Your task to perform on an android device: open app "Yahoo Mail" (install if not already installed) Image 0: 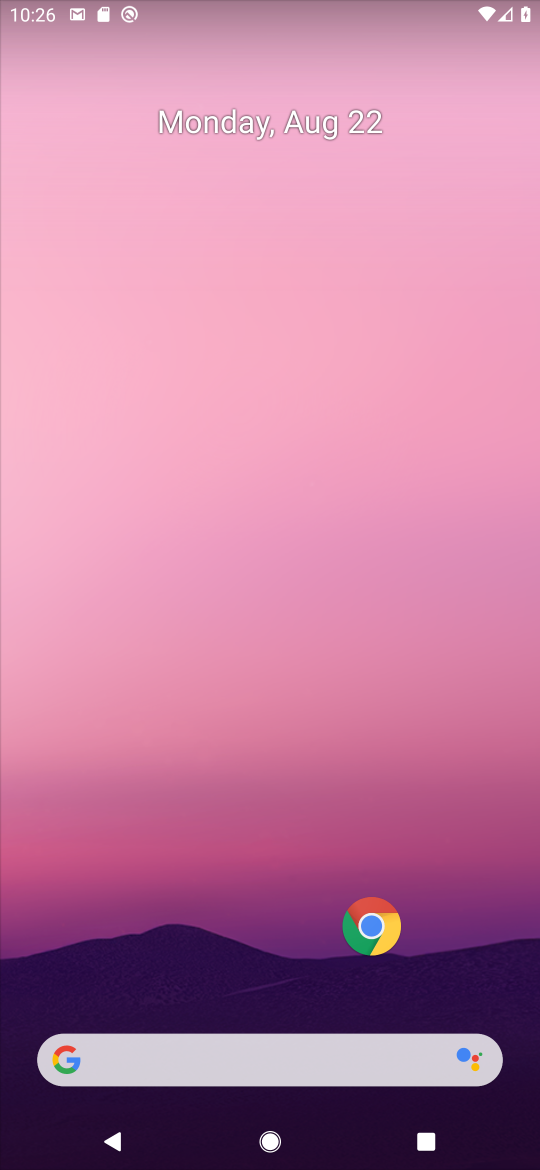
Step 0: drag from (366, 852) to (224, 71)
Your task to perform on an android device: open app "Yahoo Mail" (install if not already installed) Image 1: 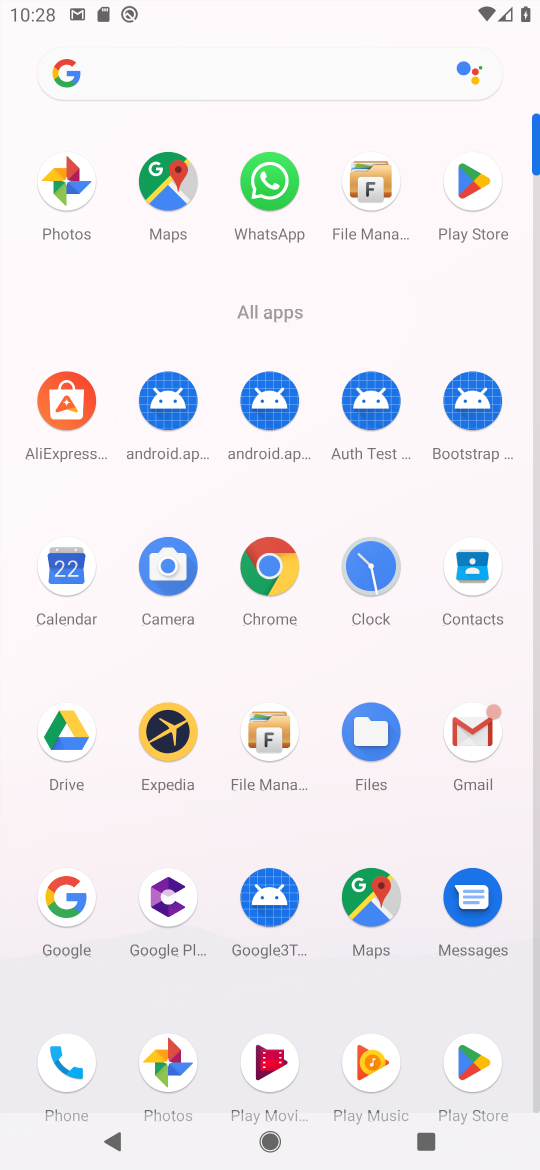
Step 1: click (467, 185)
Your task to perform on an android device: open app "Yahoo Mail" (install if not already installed) Image 2: 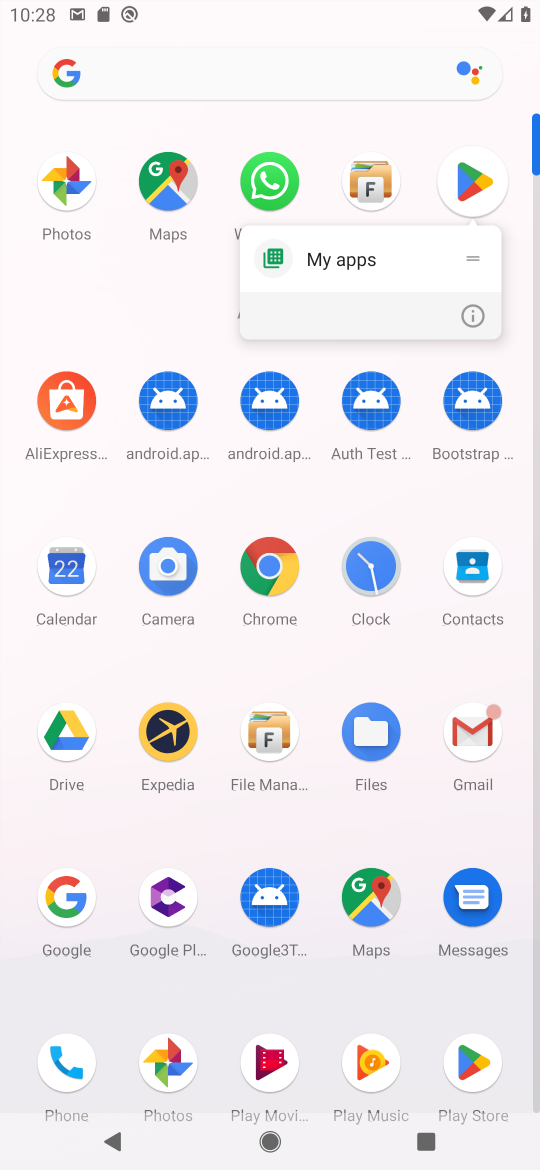
Step 2: click (467, 185)
Your task to perform on an android device: open app "Yahoo Mail" (install if not already installed) Image 3: 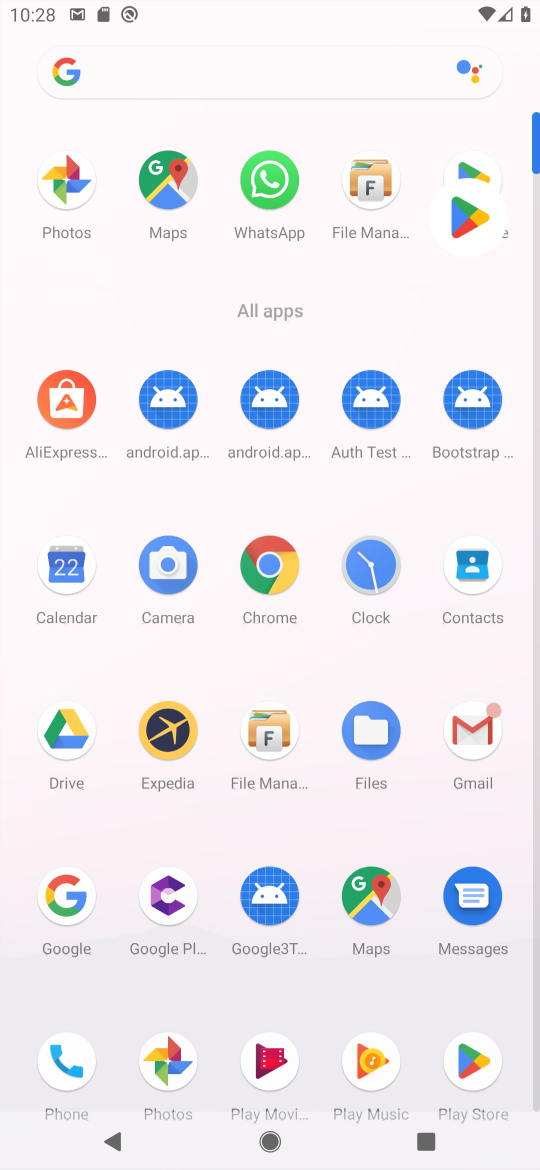
Step 3: click (466, 198)
Your task to perform on an android device: open app "Yahoo Mail" (install if not already installed) Image 4: 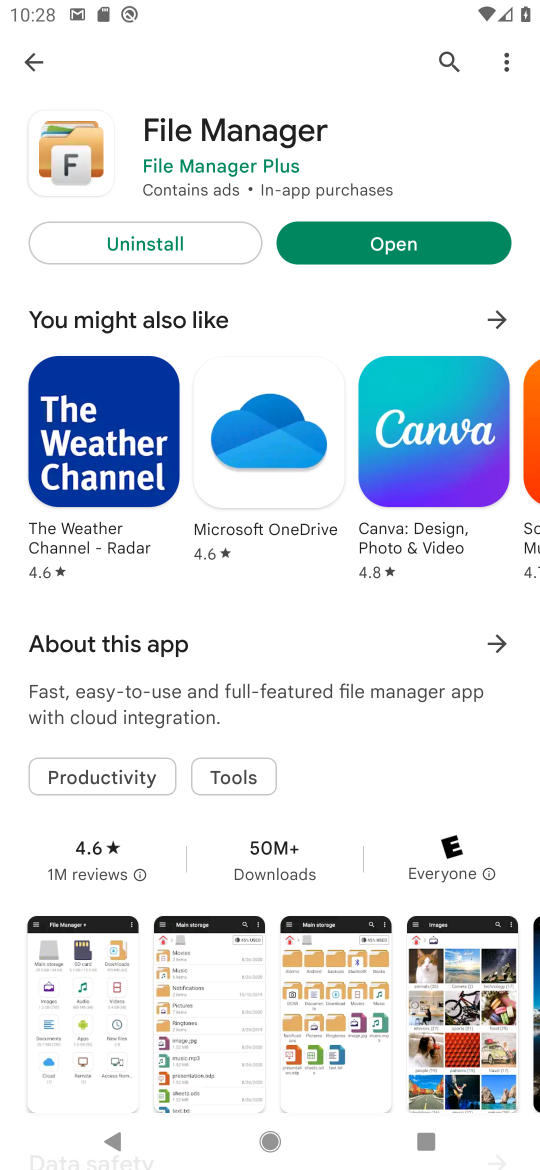
Step 4: press back button
Your task to perform on an android device: open app "Yahoo Mail" (install if not already installed) Image 5: 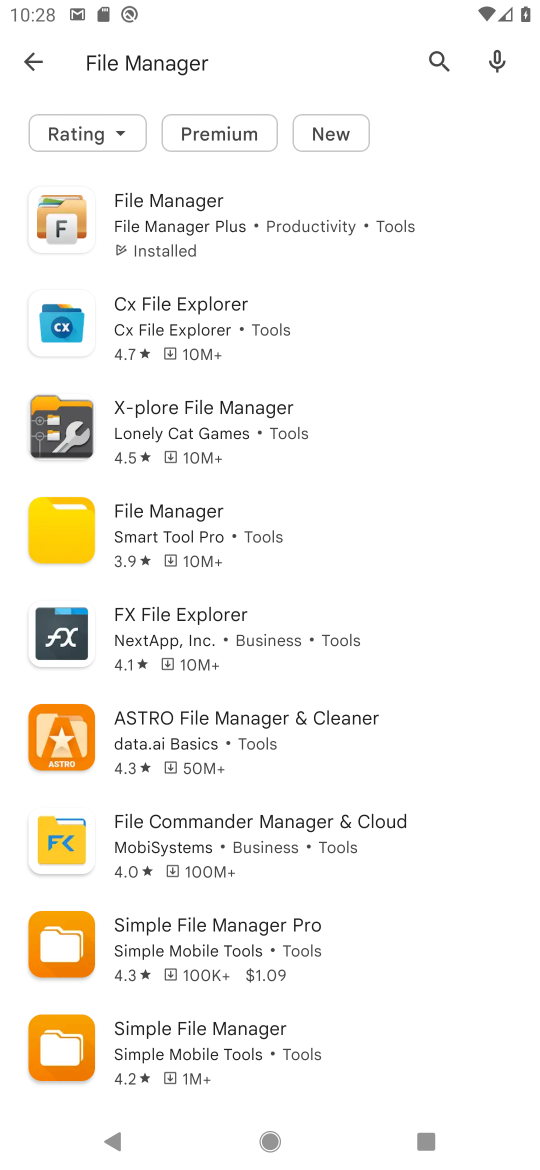
Step 5: press back button
Your task to perform on an android device: open app "Yahoo Mail" (install if not already installed) Image 6: 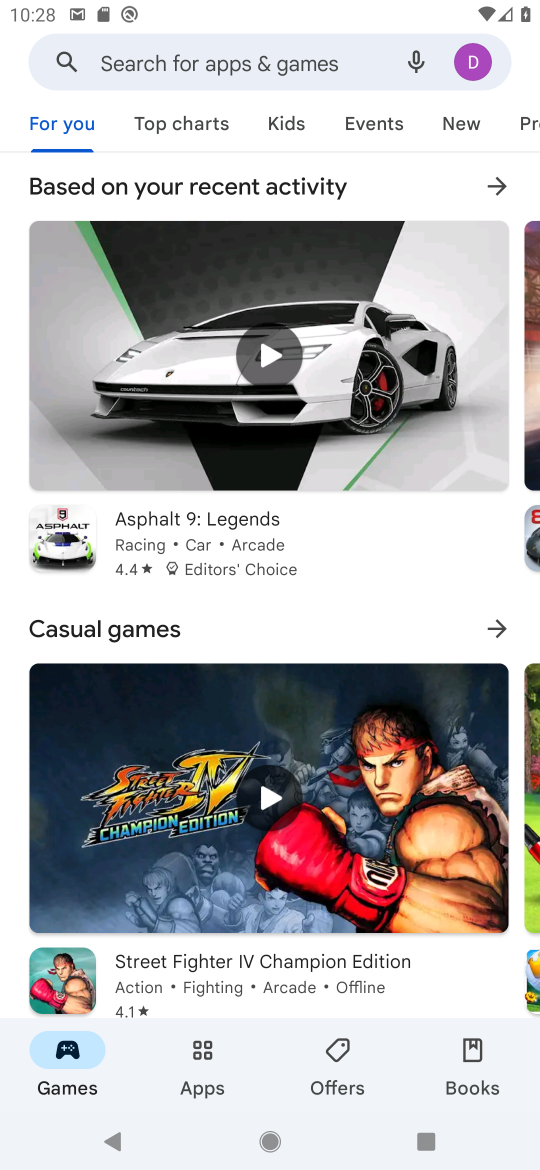
Step 6: click (214, 73)
Your task to perform on an android device: open app "Yahoo Mail" (install if not already installed) Image 7: 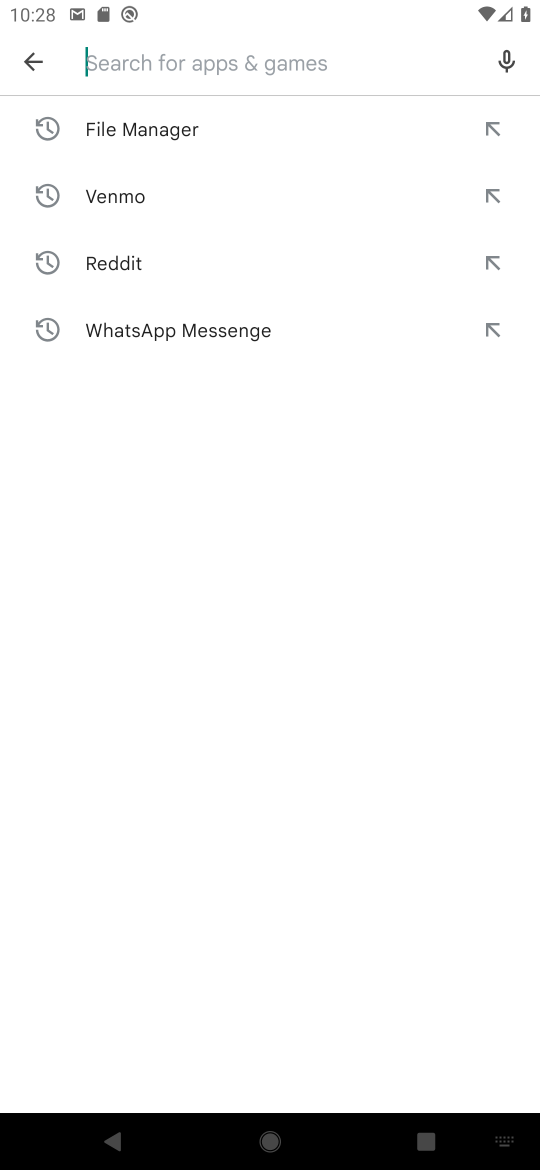
Step 7: type "Yahoo Mail""
Your task to perform on an android device: open app "Yahoo Mail" (install if not already installed) Image 8: 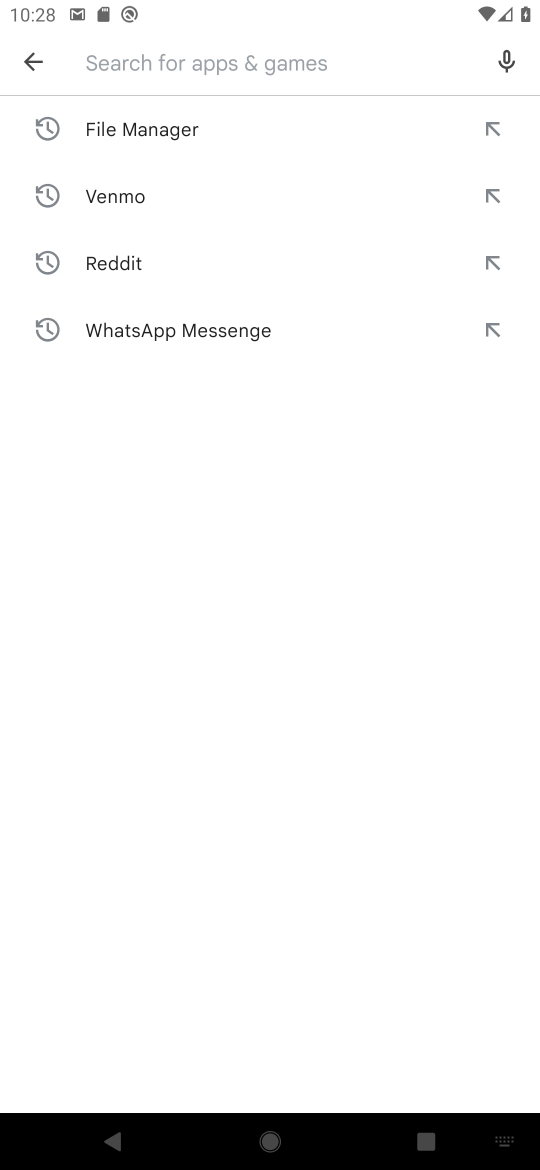
Step 8: press enter
Your task to perform on an android device: open app "Yahoo Mail" (install if not already installed) Image 9: 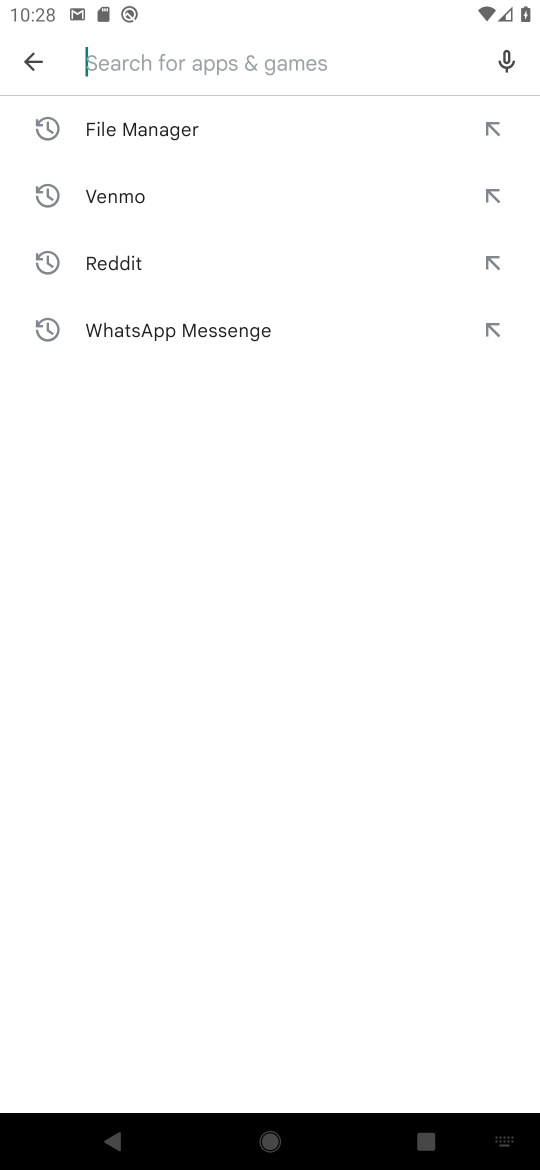
Step 9: type "Yahoo Mail"
Your task to perform on an android device: open app "Yahoo Mail" (install if not already installed) Image 10: 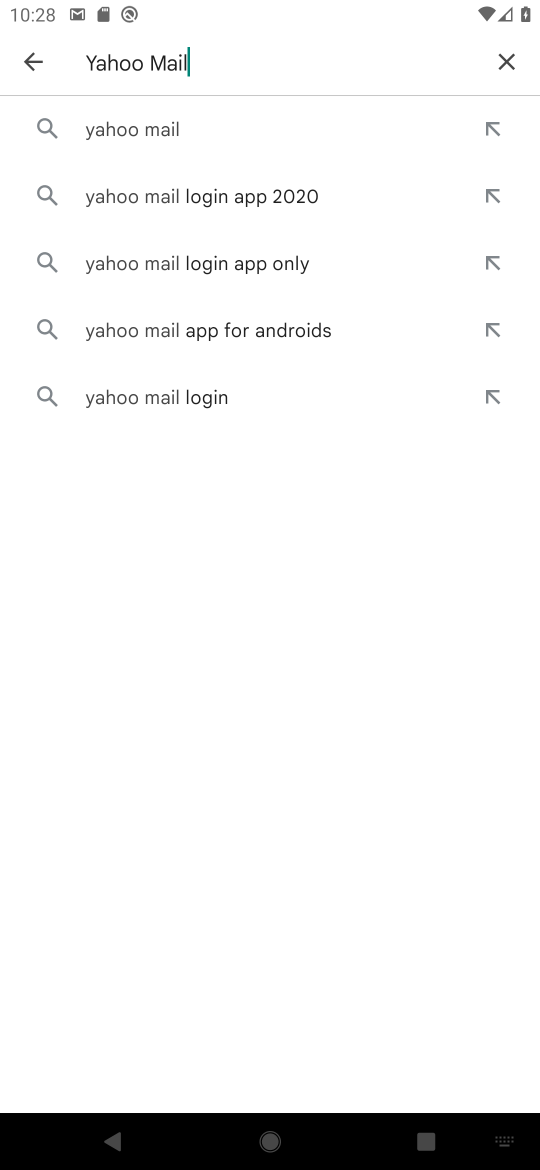
Step 10: click (117, 142)
Your task to perform on an android device: open app "Yahoo Mail" (install if not already installed) Image 11: 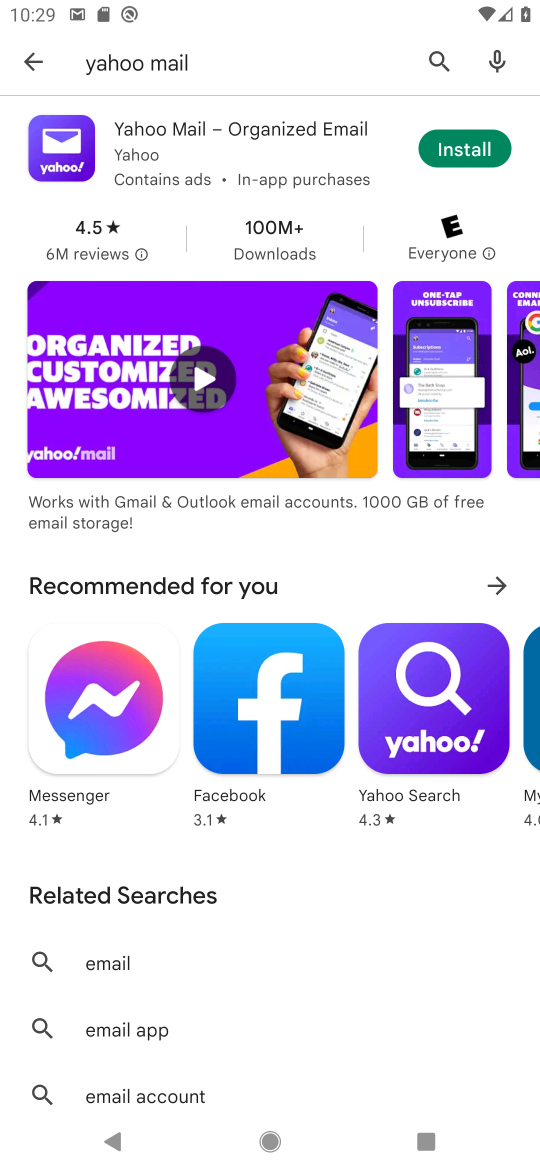
Step 11: click (483, 152)
Your task to perform on an android device: open app "Yahoo Mail" (install if not already installed) Image 12: 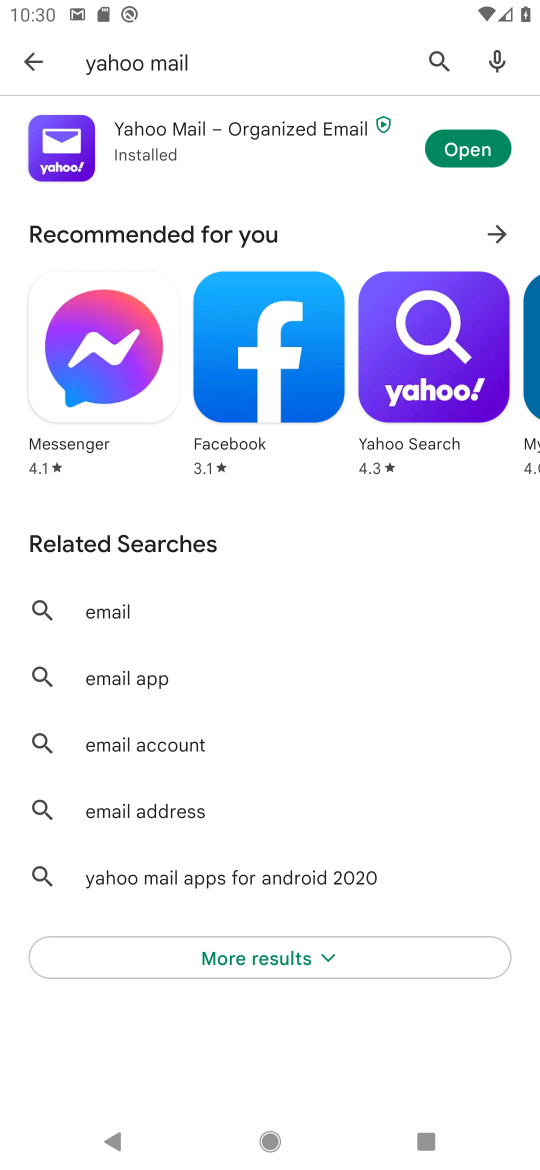
Step 12: task complete